Your task to perform on an android device: open chrome privacy settings Image 0: 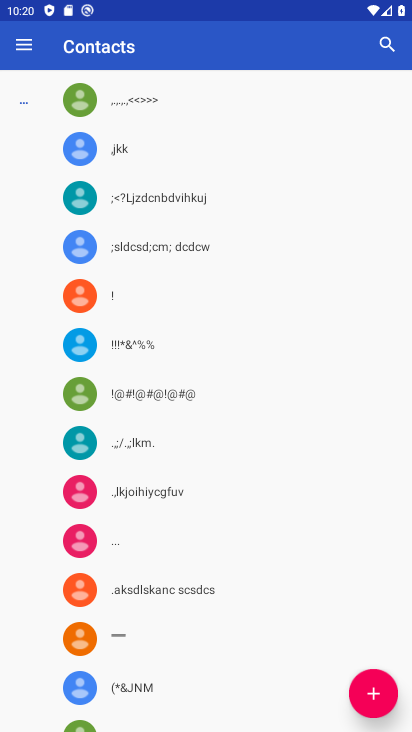
Step 0: press home button
Your task to perform on an android device: open chrome privacy settings Image 1: 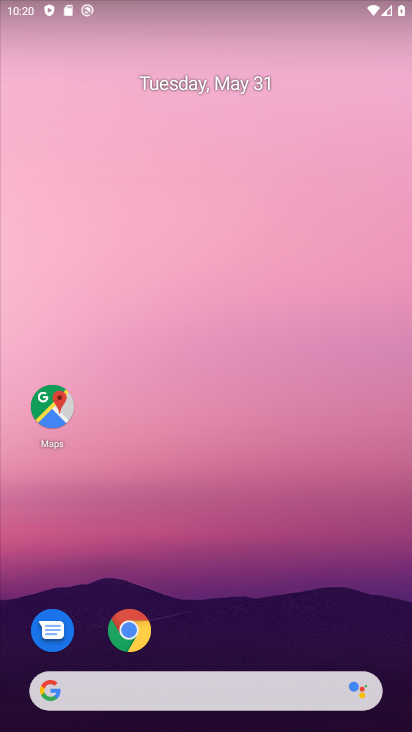
Step 1: drag from (194, 647) to (229, 99)
Your task to perform on an android device: open chrome privacy settings Image 2: 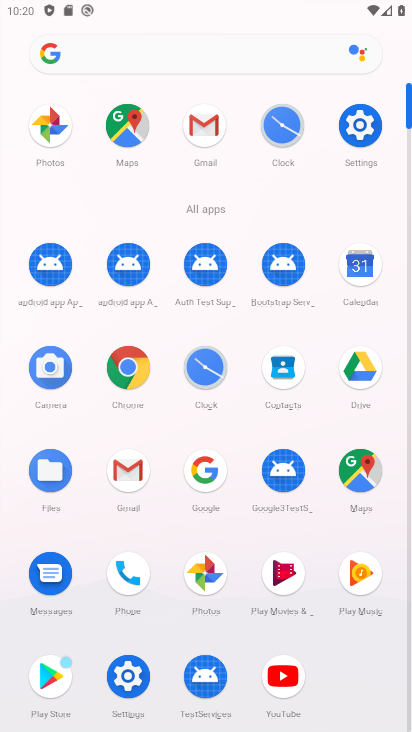
Step 2: click (127, 378)
Your task to perform on an android device: open chrome privacy settings Image 3: 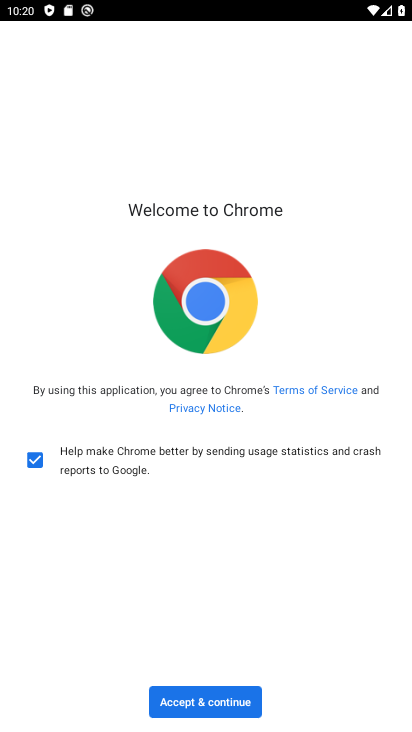
Step 3: click (222, 705)
Your task to perform on an android device: open chrome privacy settings Image 4: 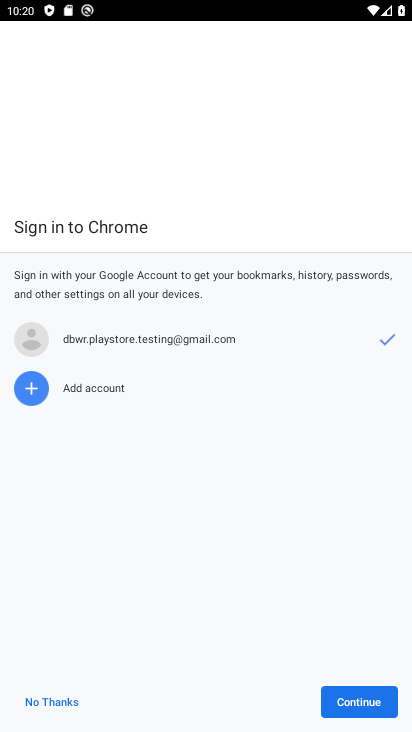
Step 4: click (358, 700)
Your task to perform on an android device: open chrome privacy settings Image 5: 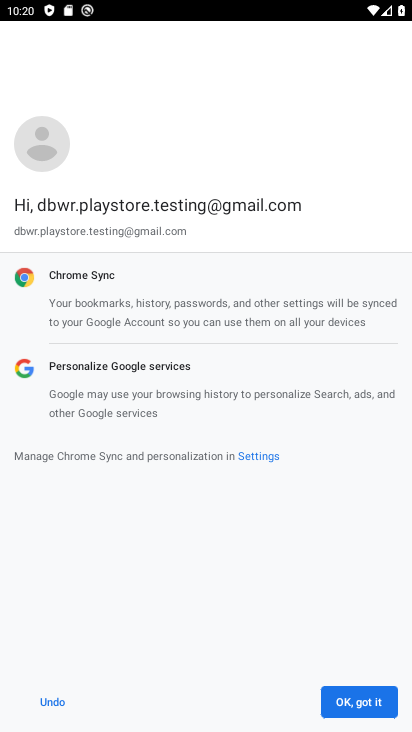
Step 5: click (358, 700)
Your task to perform on an android device: open chrome privacy settings Image 6: 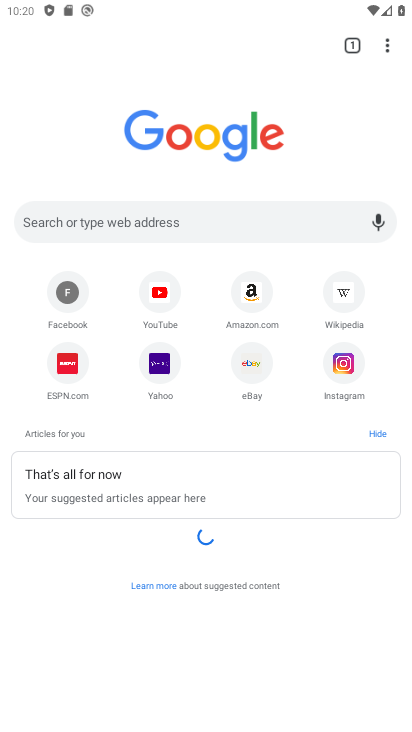
Step 6: click (391, 44)
Your task to perform on an android device: open chrome privacy settings Image 7: 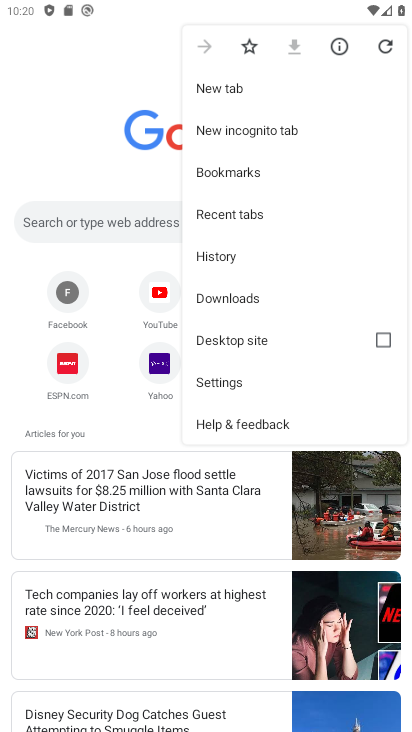
Step 7: click (239, 388)
Your task to perform on an android device: open chrome privacy settings Image 8: 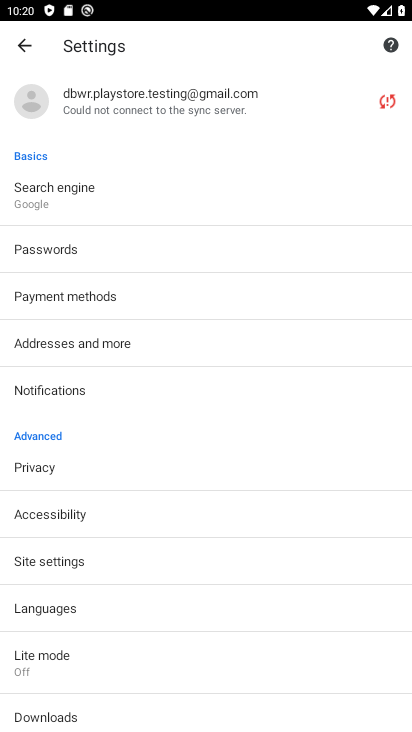
Step 8: click (29, 474)
Your task to perform on an android device: open chrome privacy settings Image 9: 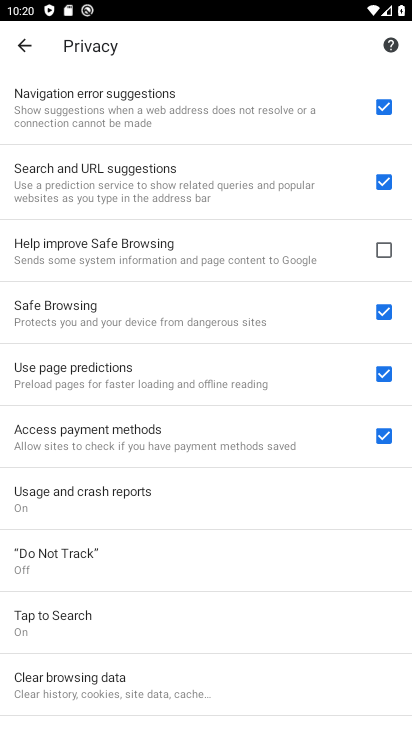
Step 9: task complete